Your task to perform on an android device: Is it going to rain this weekend? Image 0: 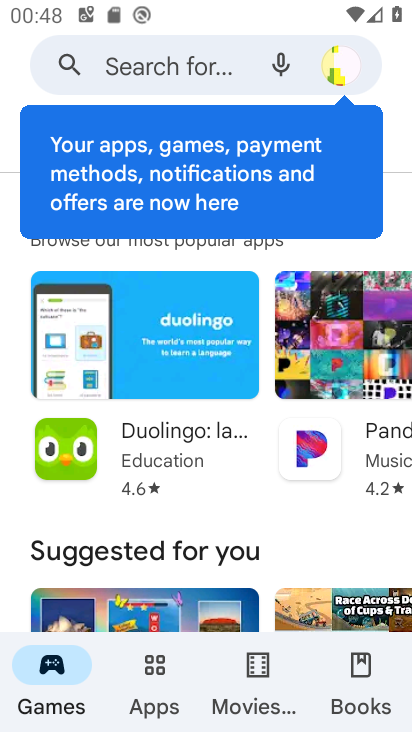
Step 0: press home button
Your task to perform on an android device: Is it going to rain this weekend? Image 1: 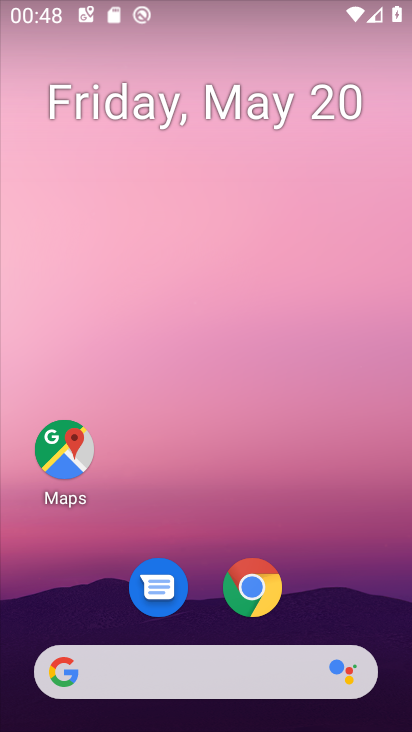
Step 1: click (237, 671)
Your task to perform on an android device: Is it going to rain this weekend? Image 2: 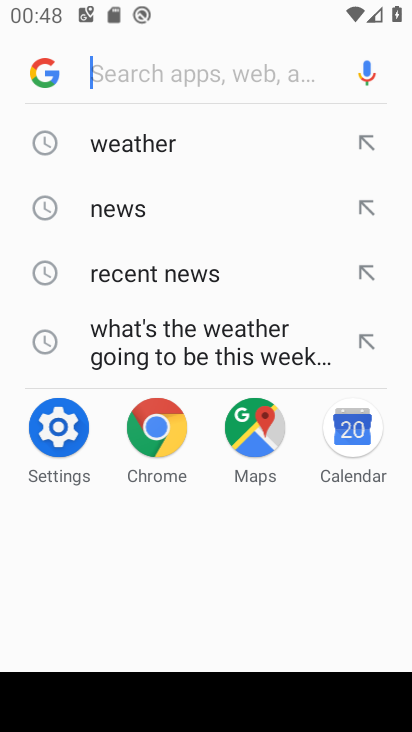
Step 2: click (160, 143)
Your task to perform on an android device: Is it going to rain this weekend? Image 3: 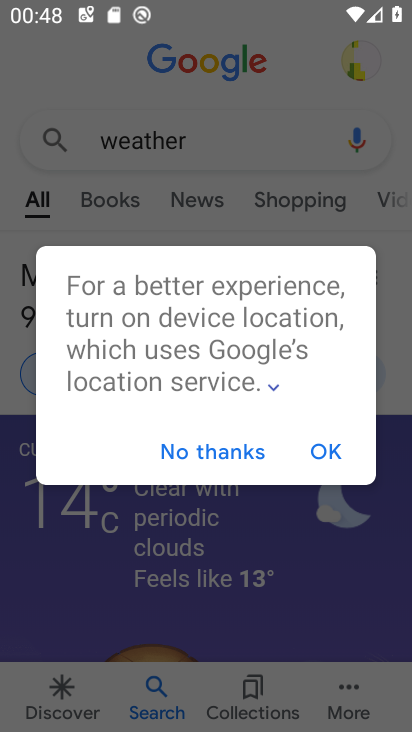
Step 3: click (227, 462)
Your task to perform on an android device: Is it going to rain this weekend? Image 4: 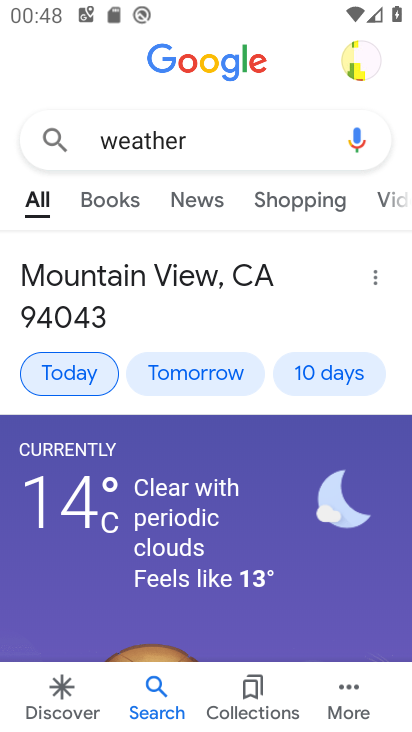
Step 4: click (350, 381)
Your task to perform on an android device: Is it going to rain this weekend? Image 5: 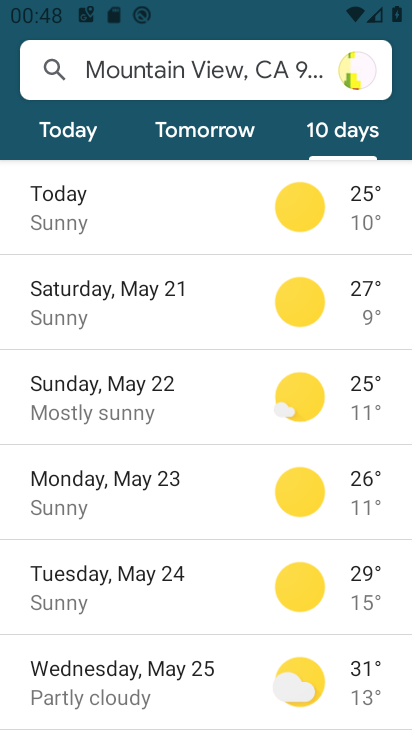
Step 5: click (128, 309)
Your task to perform on an android device: Is it going to rain this weekend? Image 6: 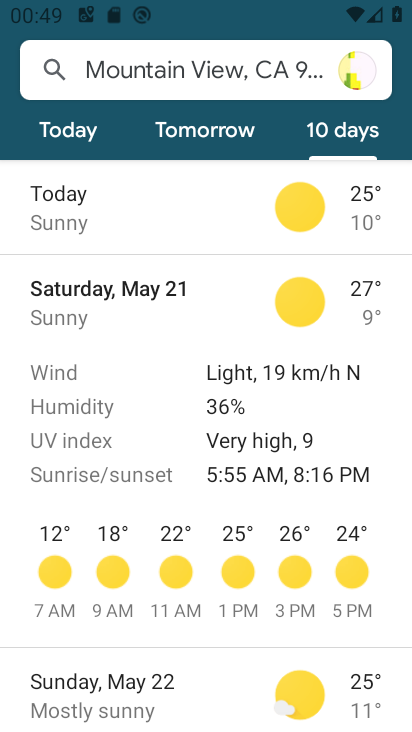
Step 6: task complete